Your task to perform on an android device: Search for Mexican restaurants on Maps Image 0: 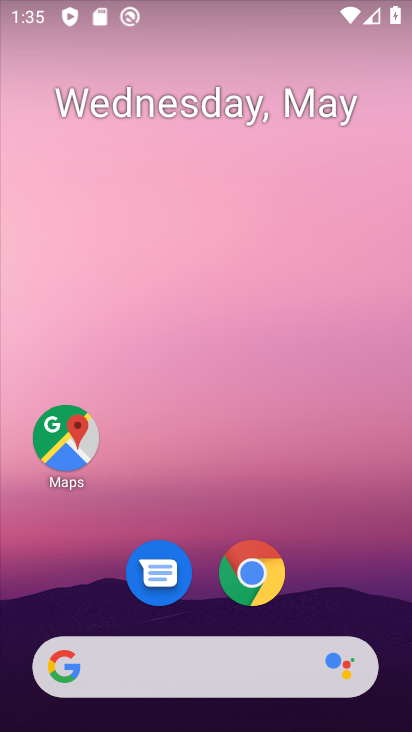
Step 0: click (58, 431)
Your task to perform on an android device: Search for Mexican restaurants on Maps Image 1: 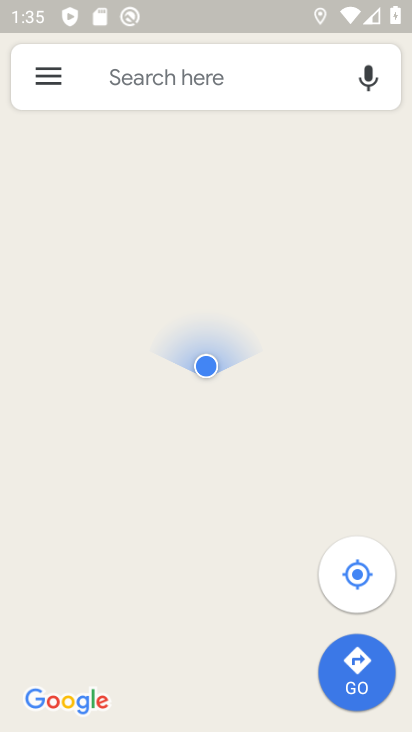
Step 1: click (164, 87)
Your task to perform on an android device: Search for Mexican restaurants on Maps Image 2: 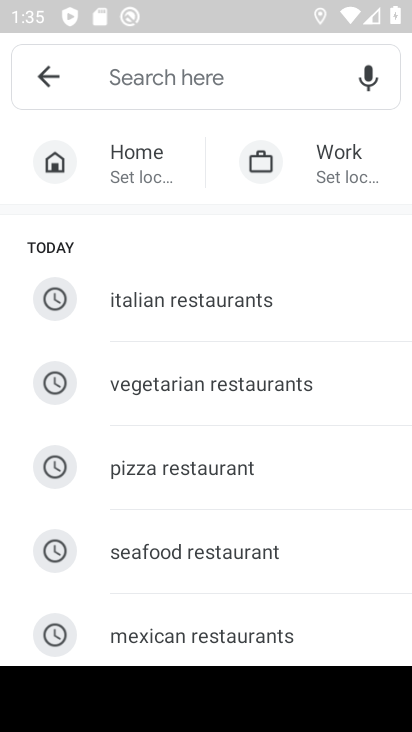
Step 2: type "mexican restaurants"
Your task to perform on an android device: Search for Mexican restaurants on Maps Image 3: 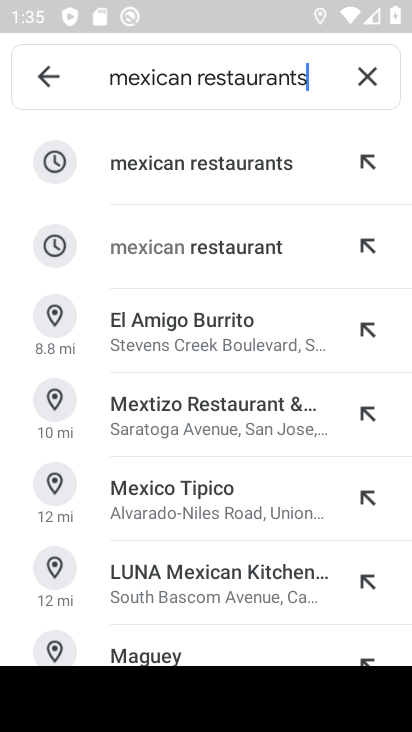
Step 3: click (213, 179)
Your task to perform on an android device: Search for Mexican restaurants on Maps Image 4: 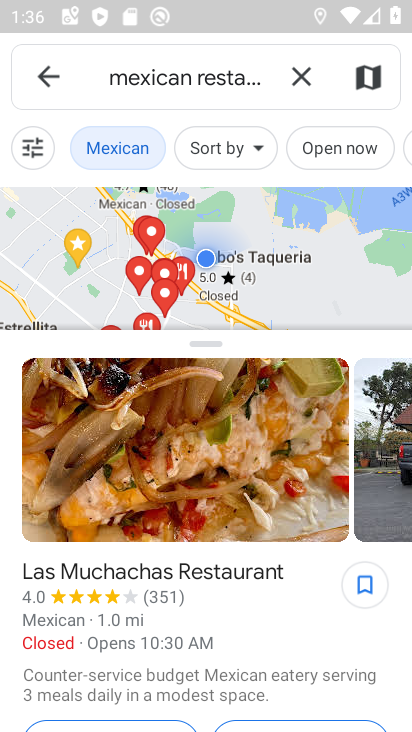
Step 4: task complete